Your task to perform on an android device: Open Android settings Image 0: 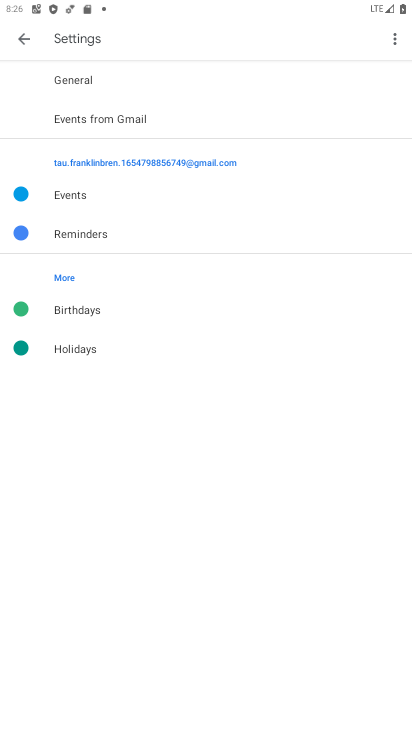
Step 0: press home button
Your task to perform on an android device: Open Android settings Image 1: 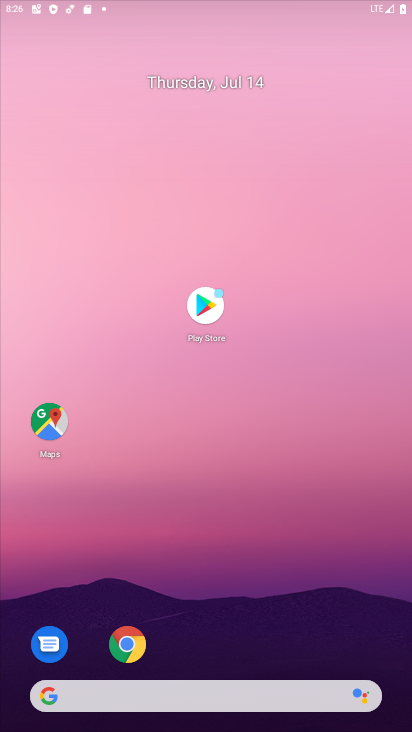
Step 1: drag from (184, 603) to (223, 134)
Your task to perform on an android device: Open Android settings Image 2: 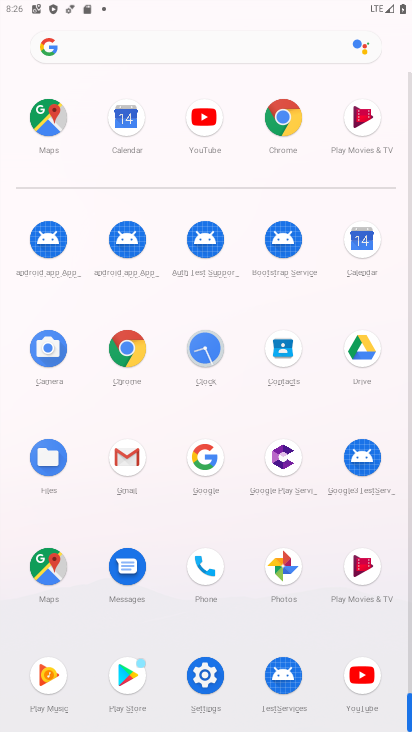
Step 2: click (212, 678)
Your task to perform on an android device: Open Android settings Image 3: 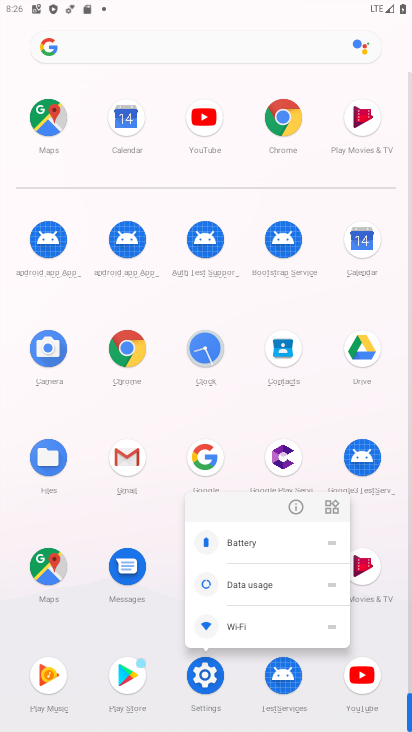
Step 3: click (293, 506)
Your task to perform on an android device: Open Android settings Image 4: 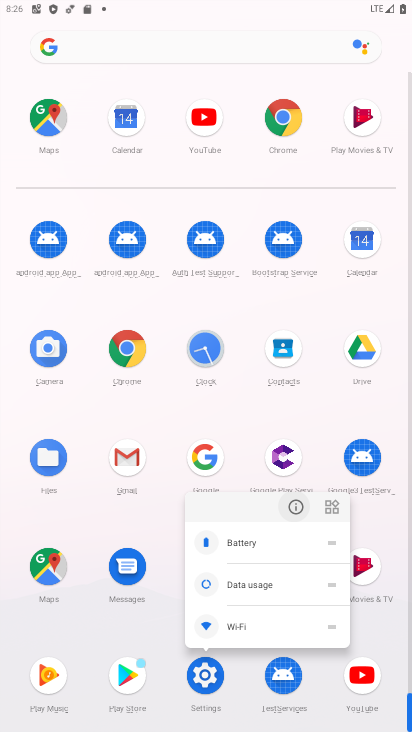
Step 4: click (295, 504)
Your task to perform on an android device: Open Android settings Image 5: 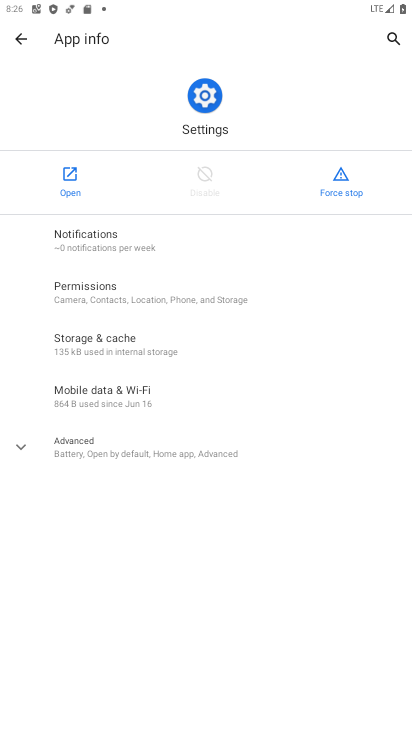
Step 5: click (69, 177)
Your task to perform on an android device: Open Android settings Image 6: 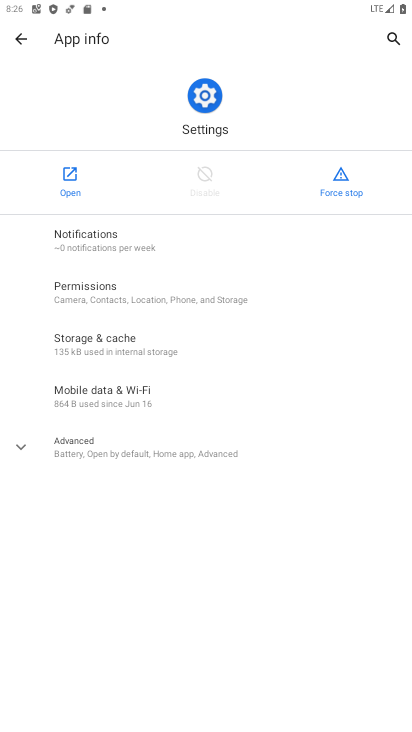
Step 6: click (69, 177)
Your task to perform on an android device: Open Android settings Image 7: 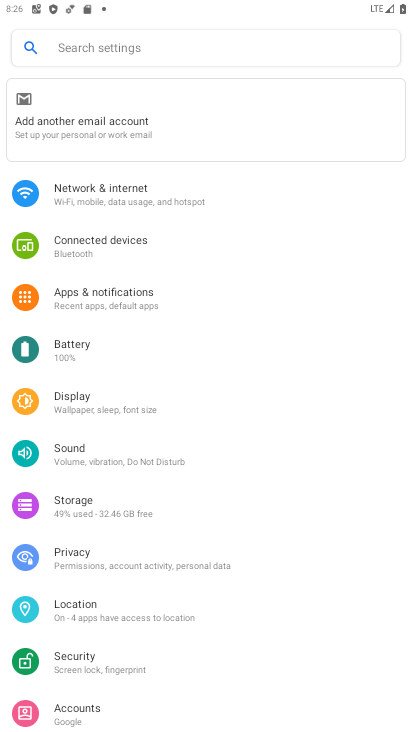
Step 7: drag from (170, 570) to (205, 299)
Your task to perform on an android device: Open Android settings Image 8: 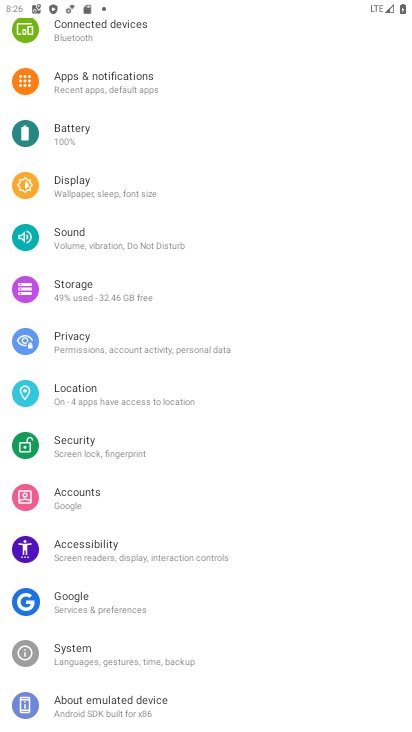
Step 8: drag from (153, 654) to (207, 311)
Your task to perform on an android device: Open Android settings Image 9: 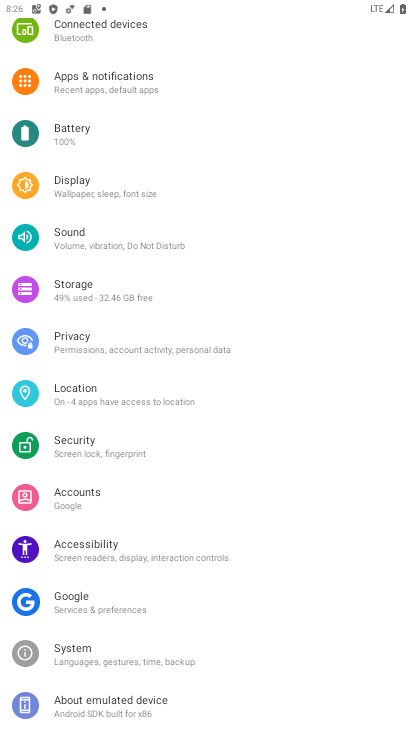
Step 9: click (107, 708)
Your task to perform on an android device: Open Android settings Image 10: 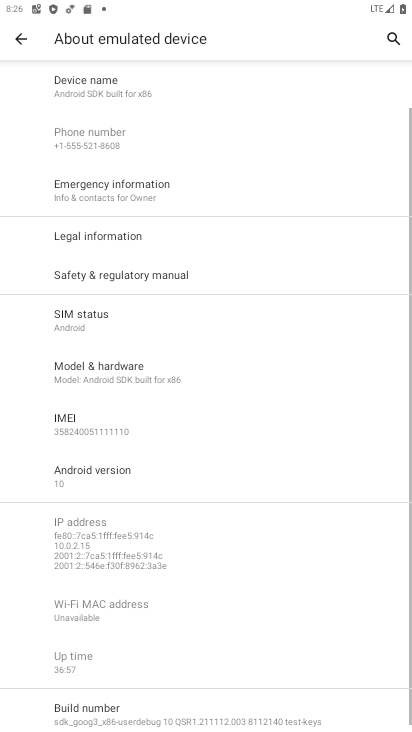
Step 10: click (114, 478)
Your task to perform on an android device: Open Android settings Image 11: 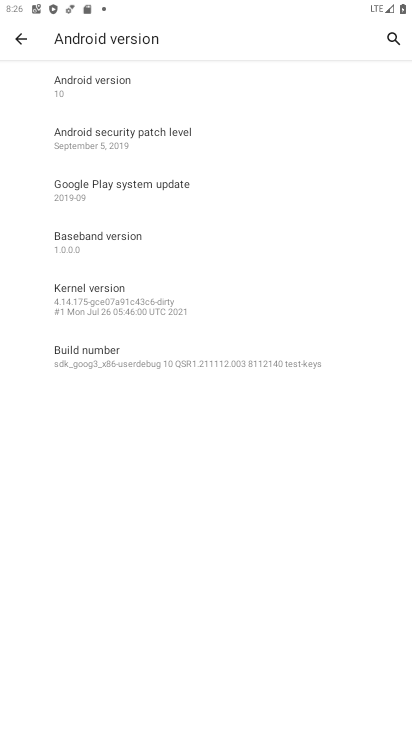
Step 11: drag from (220, 605) to (267, 245)
Your task to perform on an android device: Open Android settings Image 12: 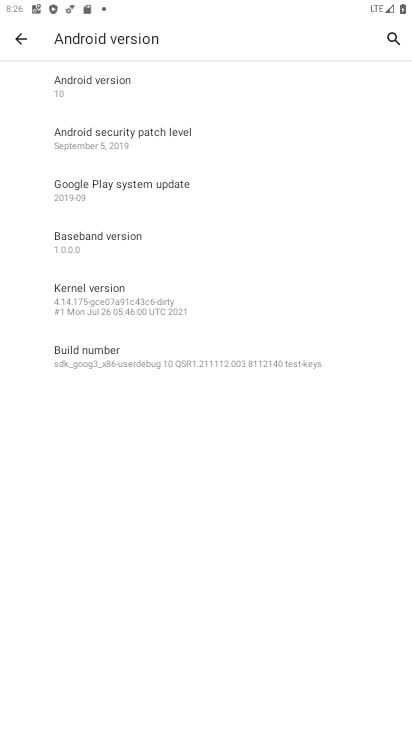
Step 12: click (185, 108)
Your task to perform on an android device: Open Android settings Image 13: 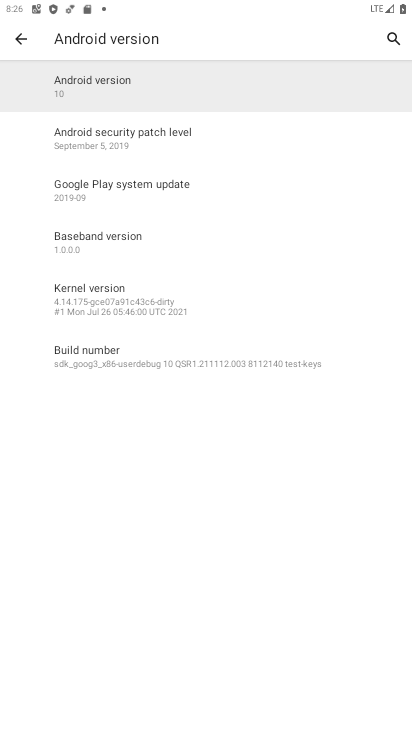
Step 13: click (183, 105)
Your task to perform on an android device: Open Android settings Image 14: 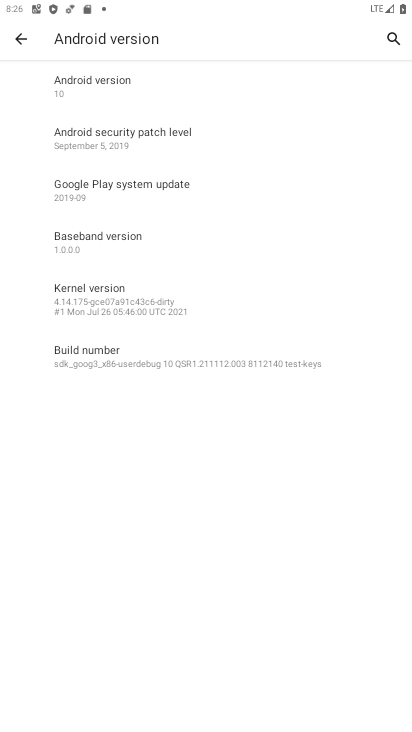
Step 14: task complete